Your task to perform on an android device: Go to accessibility settings Image 0: 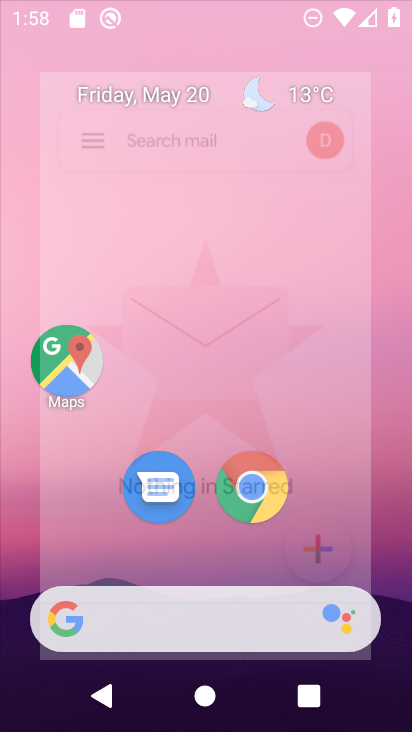
Step 0: press home button
Your task to perform on an android device: Go to accessibility settings Image 1: 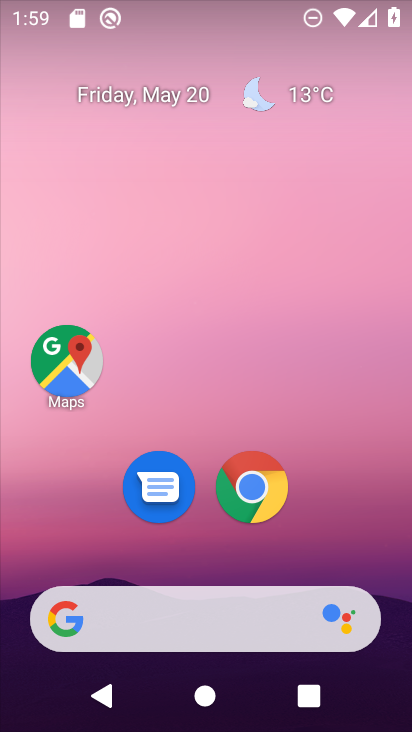
Step 1: drag from (210, 560) to (212, 114)
Your task to perform on an android device: Go to accessibility settings Image 2: 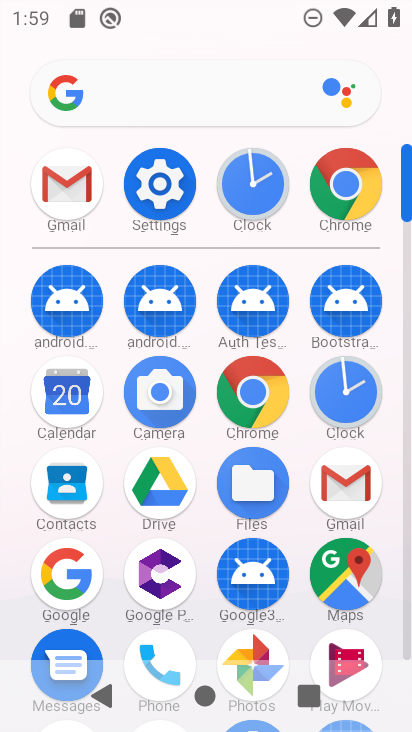
Step 2: click (156, 171)
Your task to perform on an android device: Go to accessibility settings Image 3: 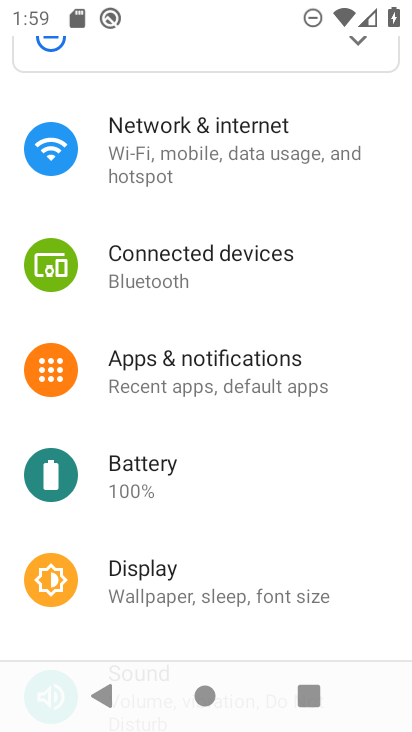
Step 3: drag from (212, 578) to (234, 113)
Your task to perform on an android device: Go to accessibility settings Image 4: 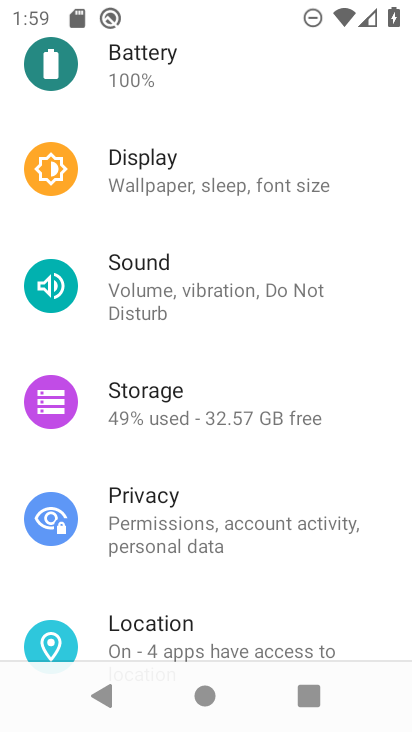
Step 4: drag from (226, 357) to (228, 176)
Your task to perform on an android device: Go to accessibility settings Image 5: 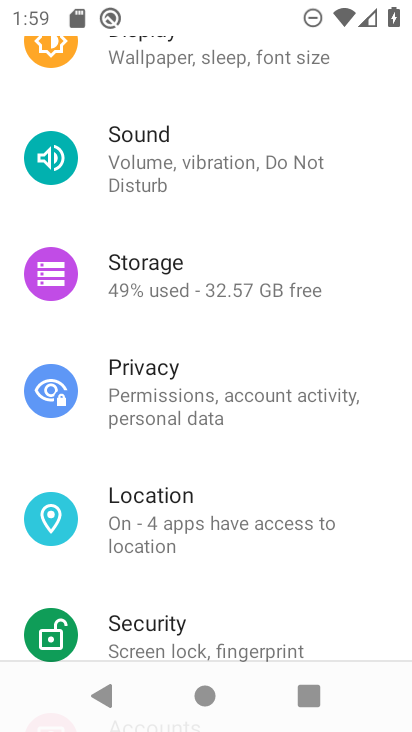
Step 5: drag from (230, 622) to (242, 219)
Your task to perform on an android device: Go to accessibility settings Image 6: 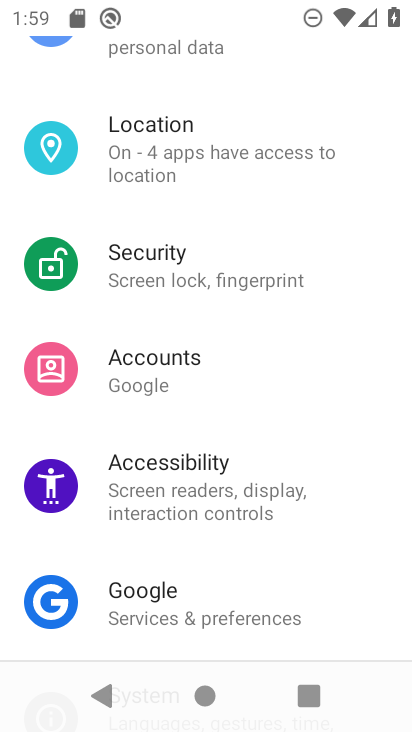
Step 6: click (256, 468)
Your task to perform on an android device: Go to accessibility settings Image 7: 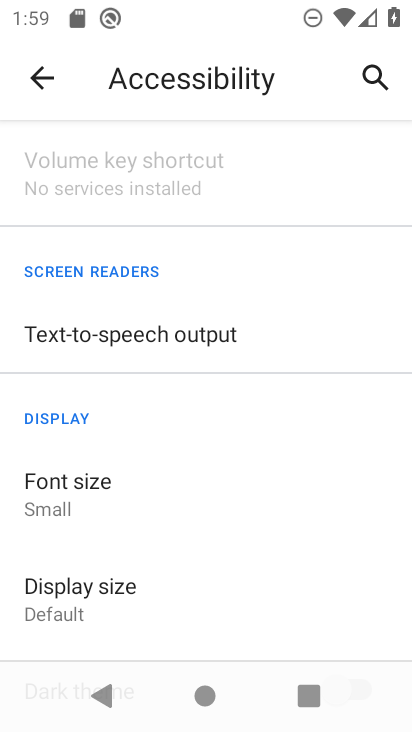
Step 7: task complete